Your task to perform on an android device: create a new album in the google photos Image 0: 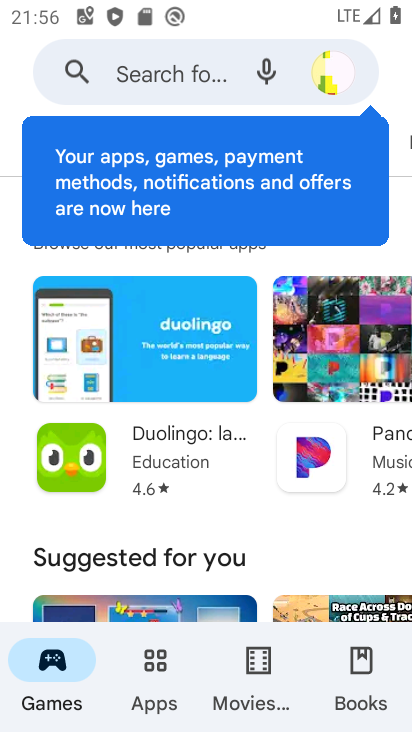
Step 0: press home button
Your task to perform on an android device: create a new album in the google photos Image 1: 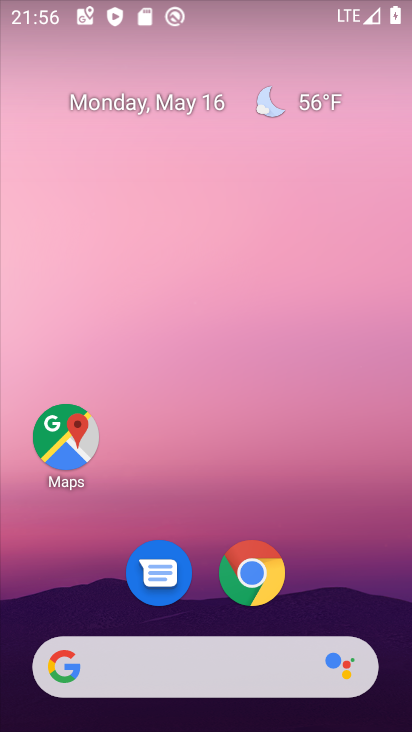
Step 1: drag from (223, 706) to (224, 138)
Your task to perform on an android device: create a new album in the google photos Image 2: 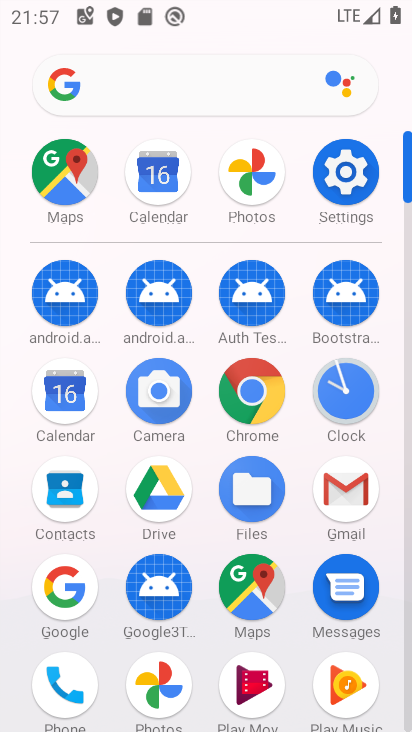
Step 2: click (254, 173)
Your task to perform on an android device: create a new album in the google photos Image 3: 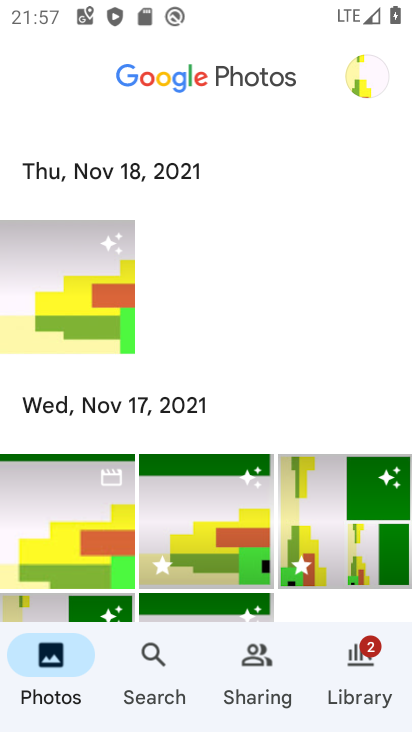
Step 3: click (358, 662)
Your task to perform on an android device: create a new album in the google photos Image 4: 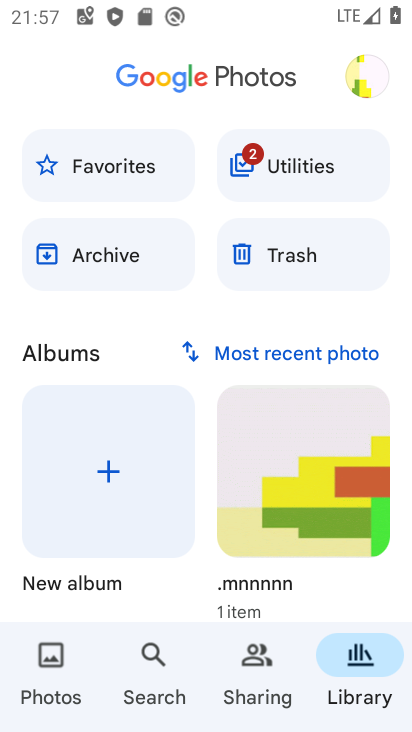
Step 4: click (112, 469)
Your task to perform on an android device: create a new album in the google photos Image 5: 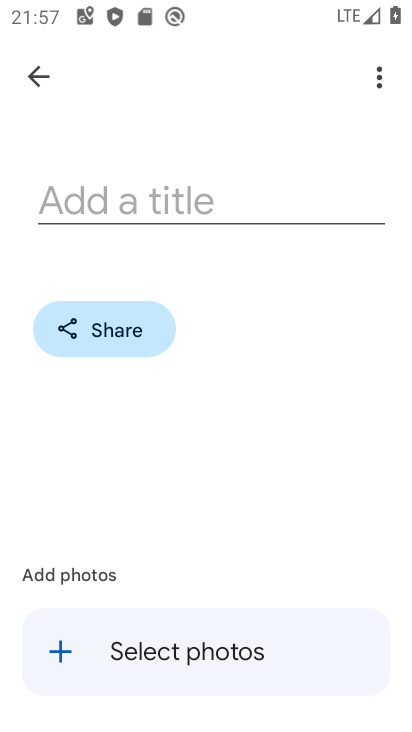
Step 5: click (250, 195)
Your task to perform on an android device: create a new album in the google photos Image 6: 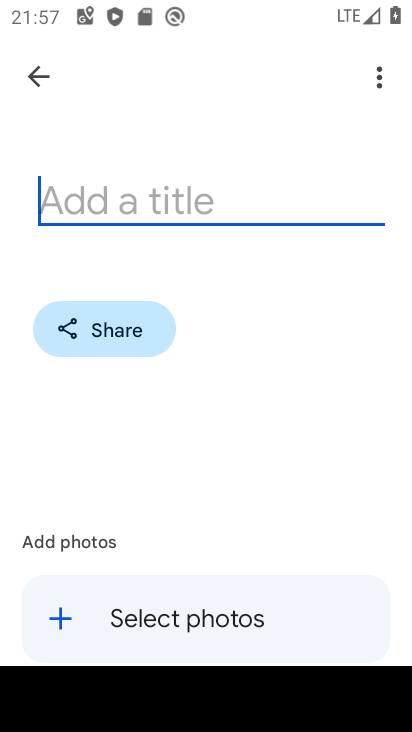
Step 6: type "nnnnnnn"
Your task to perform on an android device: create a new album in the google photos Image 7: 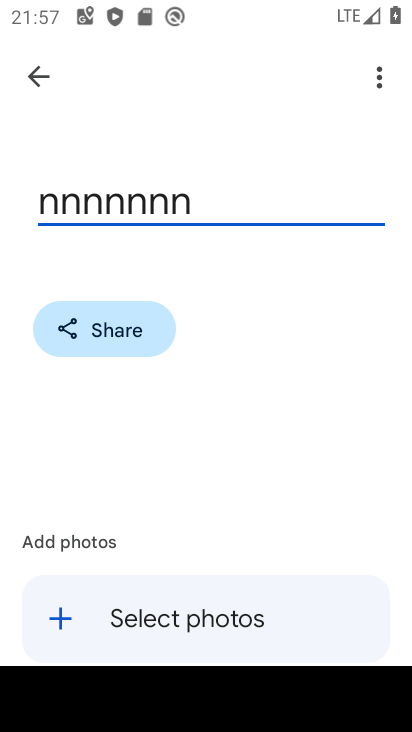
Step 7: click (138, 619)
Your task to perform on an android device: create a new album in the google photos Image 8: 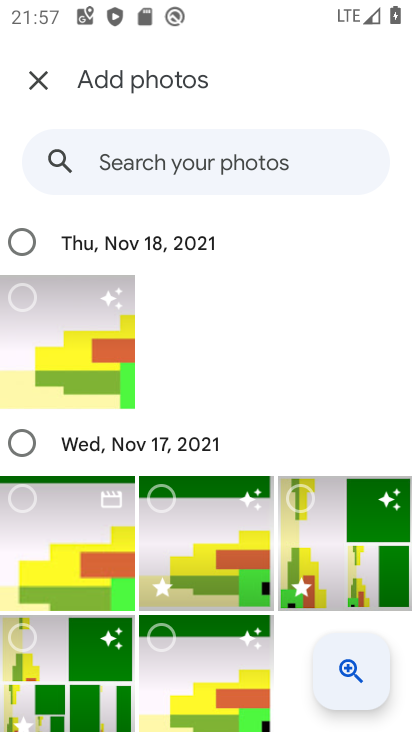
Step 8: click (29, 301)
Your task to perform on an android device: create a new album in the google photos Image 9: 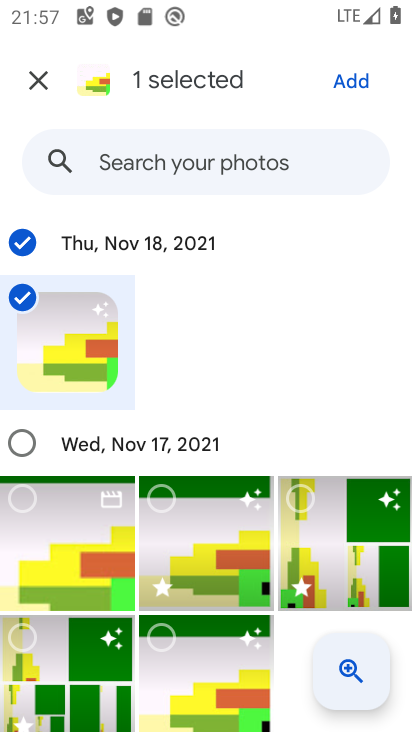
Step 9: click (20, 496)
Your task to perform on an android device: create a new album in the google photos Image 10: 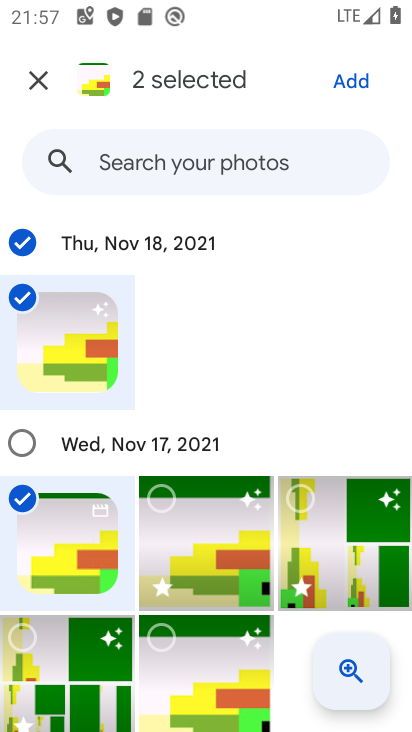
Step 10: click (298, 498)
Your task to perform on an android device: create a new album in the google photos Image 11: 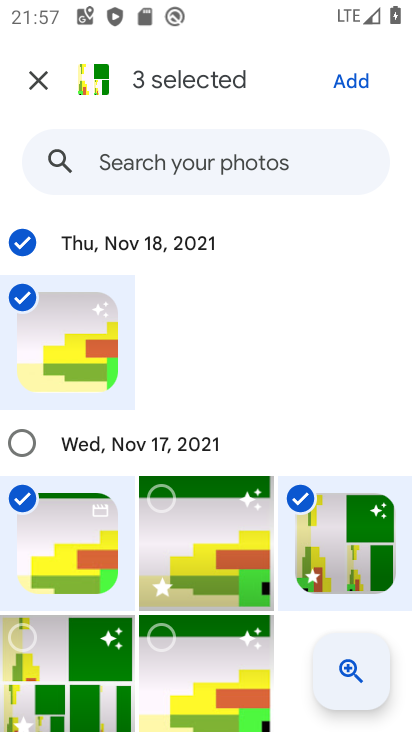
Step 11: click (161, 641)
Your task to perform on an android device: create a new album in the google photos Image 12: 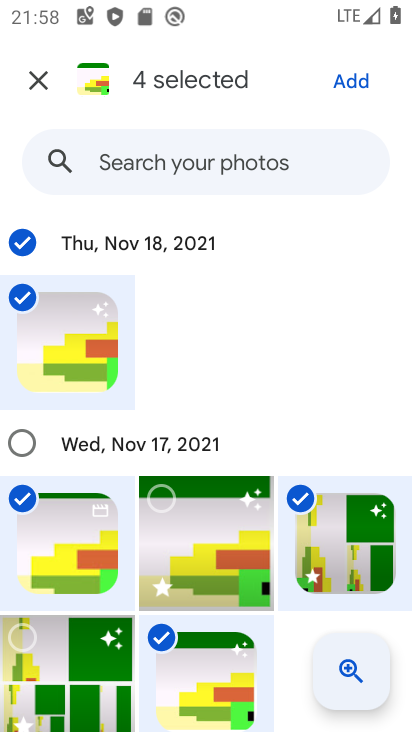
Step 12: click (360, 78)
Your task to perform on an android device: create a new album in the google photos Image 13: 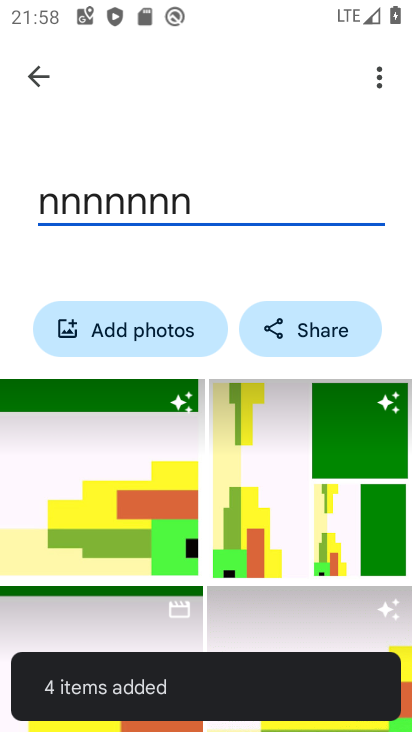
Step 13: task complete